Your task to perform on an android device: set the stopwatch Image 0: 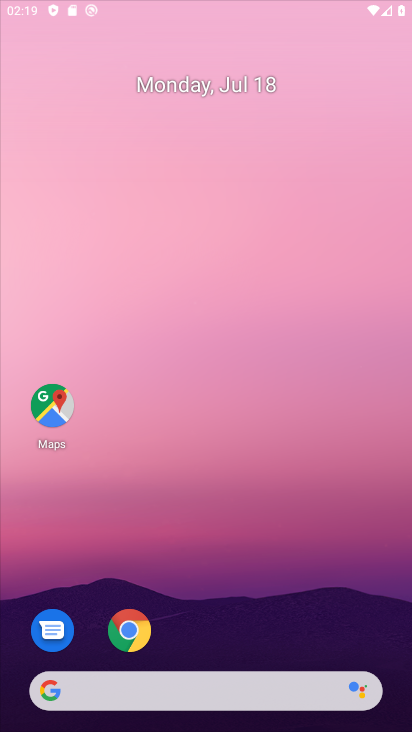
Step 0: click (133, 642)
Your task to perform on an android device: set the stopwatch Image 1: 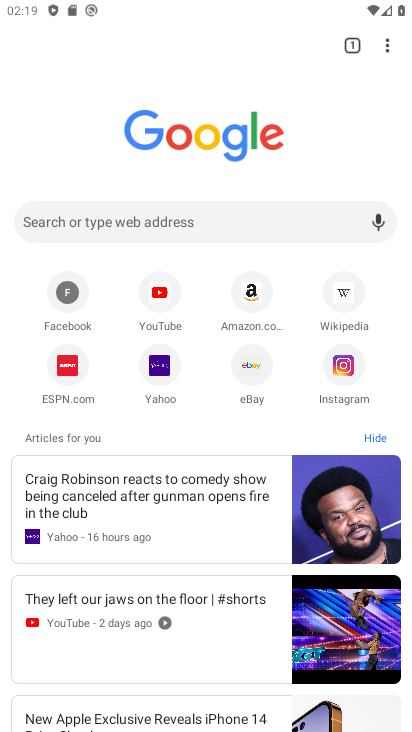
Step 1: press home button
Your task to perform on an android device: set the stopwatch Image 2: 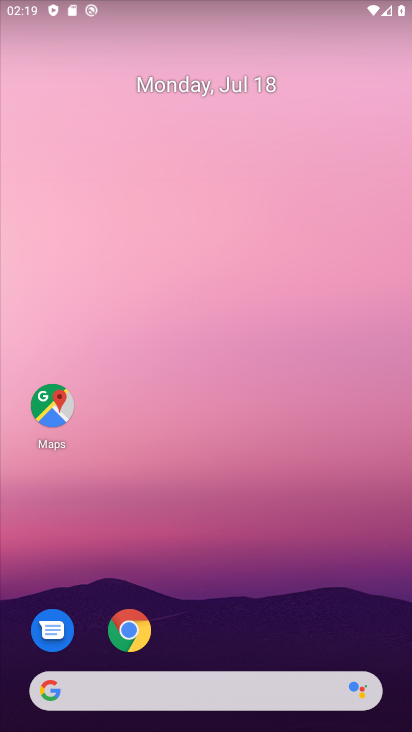
Step 2: drag from (174, 651) to (193, 82)
Your task to perform on an android device: set the stopwatch Image 3: 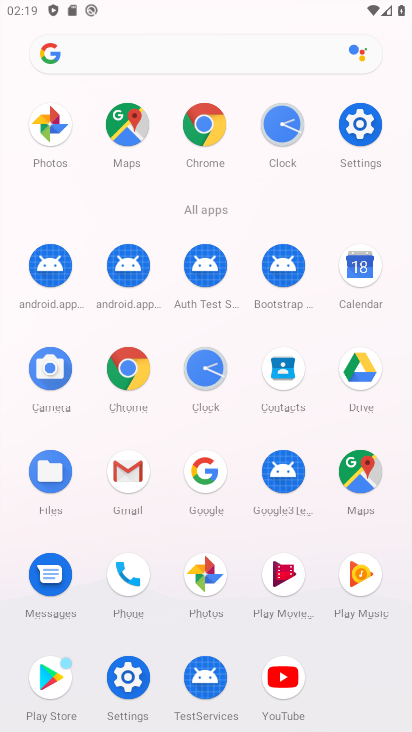
Step 3: click (280, 116)
Your task to perform on an android device: set the stopwatch Image 4: 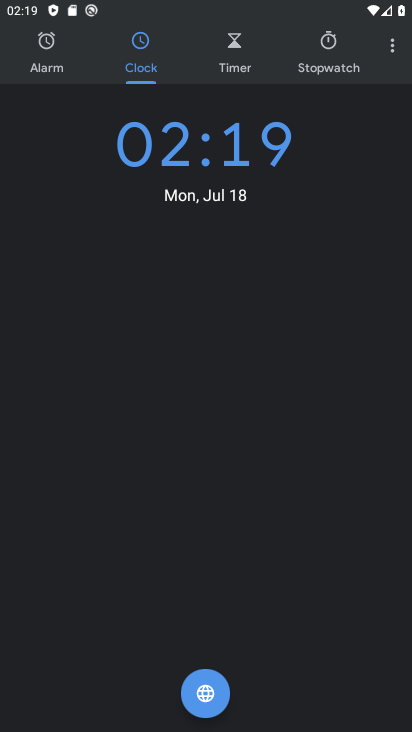
Step 4: click (321, 82)
Your task to perform on an android device: set the stopwatch Image 5: 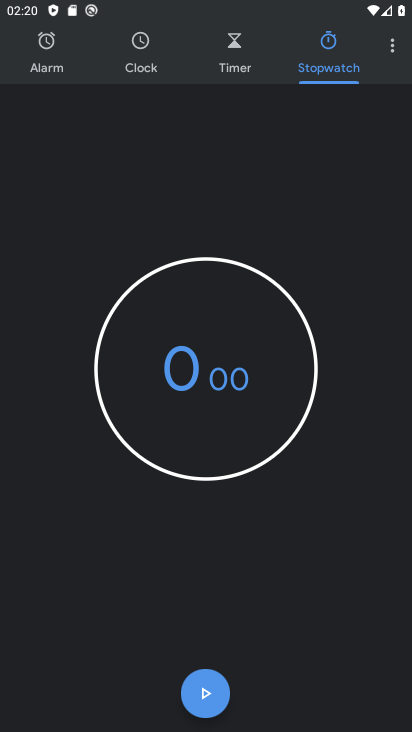
Step 5: click (211, 676)
Your task to perform on an android device: set the stopwatch Image 6: 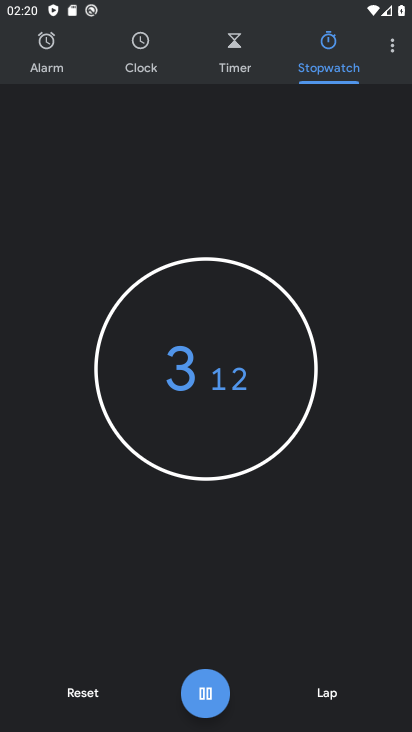
Step 6: task complete